Your task to perform on an android device: delete the emails in spam in the gmail app Image 0: 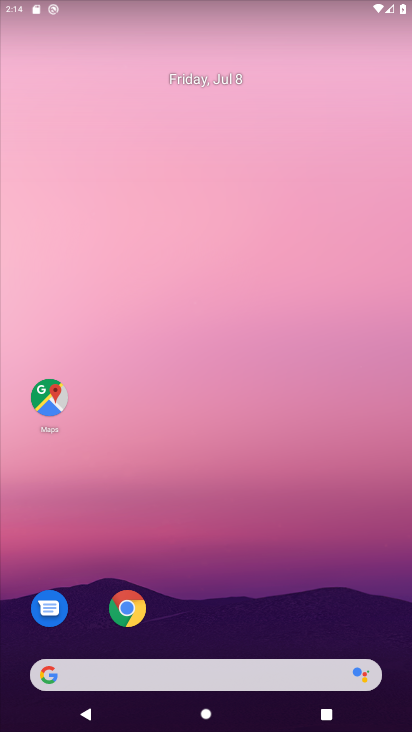
Step 0: drag from (225, 668) to (228, 135)
Your task to perform on an android device: delete the emails in spam in the gmail app Image 1: 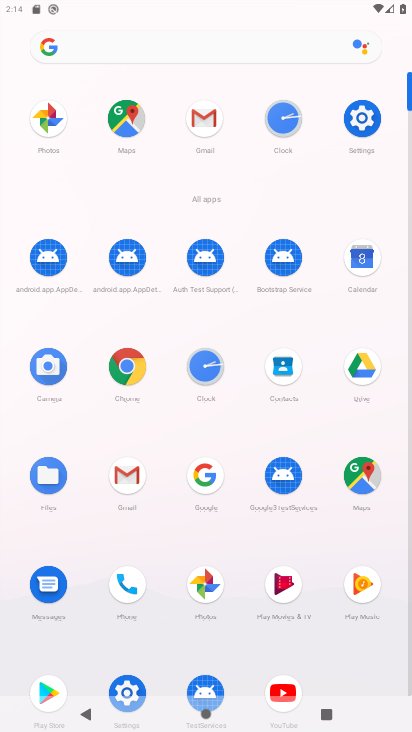
Step 1: click (197, 113)
Your task to perform on an android device: delete the emails in spam in the gmail app Image 2: 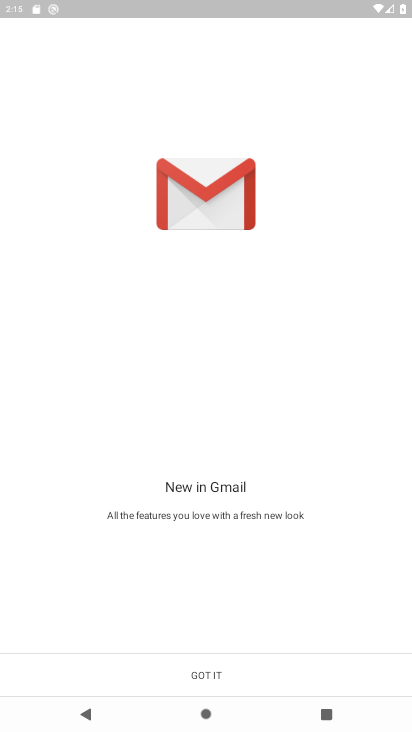
Step 2: click (170, 672)
Your task to perform on an android device: delete the emails in spam in the gmail app Image 3: 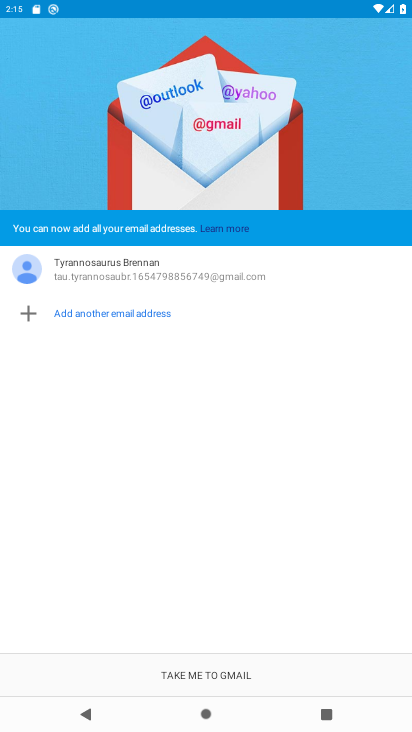
Step 3: click (203, 676)
Your task to perform on an android device: delete the emails in spam in the gmail app Image 4: 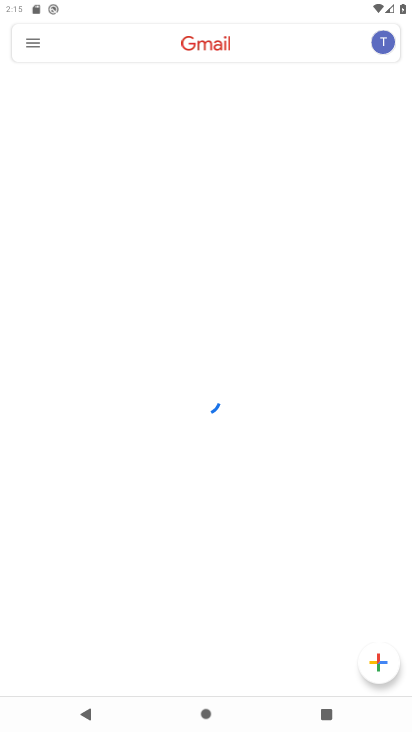
Step 4: click (27, 40)
Your task to perform on an android device: delete the emails in spam in the gmail app Image 5: 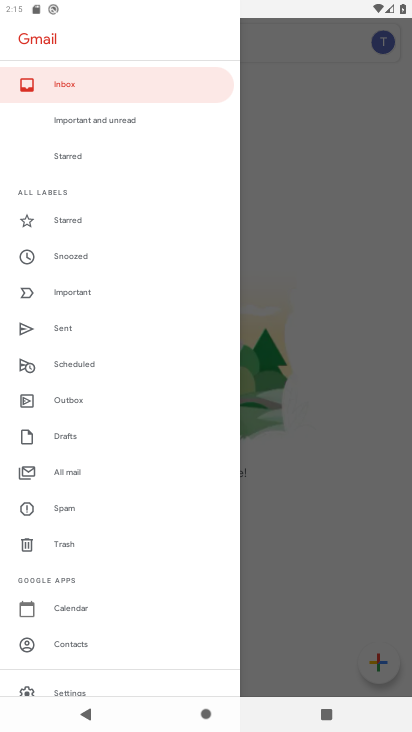
Step 5: click (78, 495)
Your task to perform on an android device: delete the emails in spam in the gmail app Image 6: 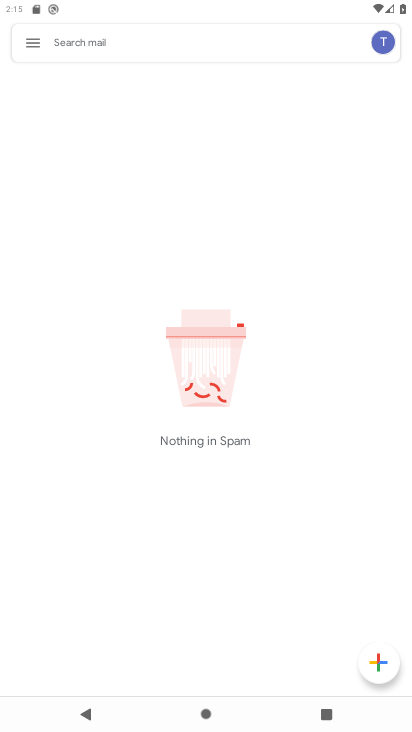
Step 6: task complete